Your task to perform on an android device: find snoozed emails in the gmail app Image 0: 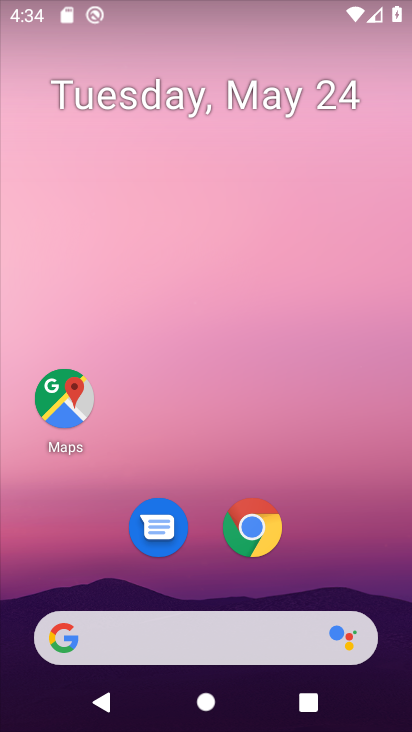
Step 0: drag from (382, 578) to (265, 240)
Your task to perform on an android device: find snoozed emails in the gmail app Image 1: 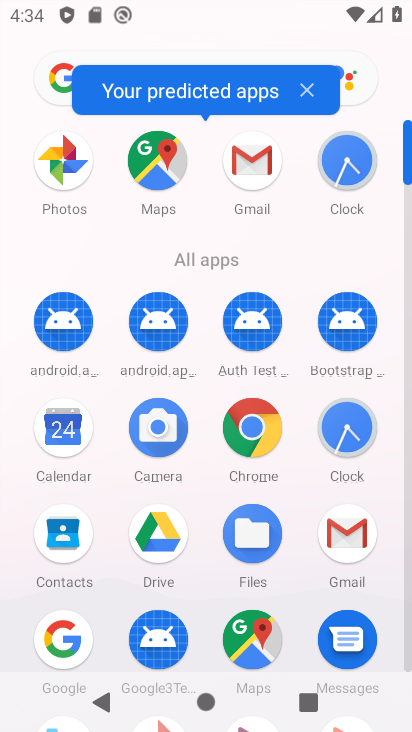
Step 1: click (250, 167)
Your task to perform on an android device: find snoozed emails in the gmail app Image 2: 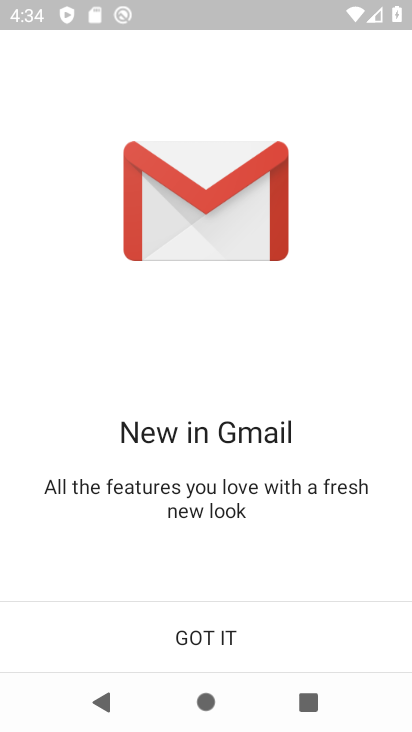
Step 2: click (186, 641)
Your task to perform on an android device: find snoozed emails in the gmail app Image 3: 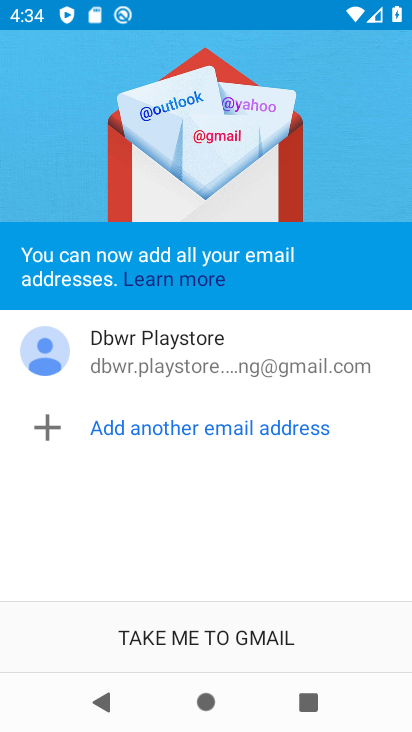
Step 3: click (186, 641)
Your task to perform on an android device: find snoozed emails in the gmail app Image 4: 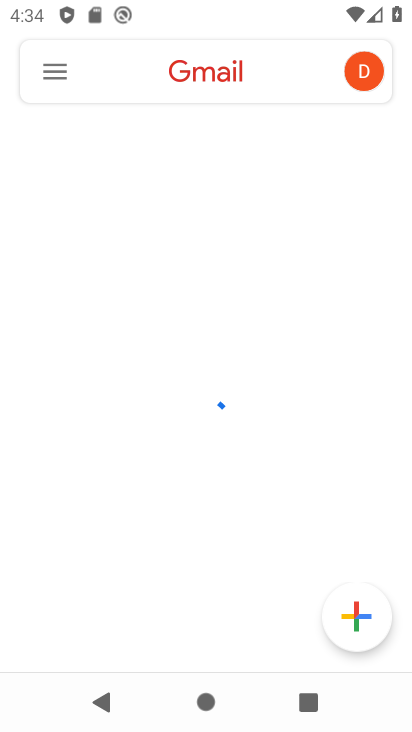
Step 4: click (47, 63)
Your task to perform on an android device: find snoozed emails in the gmail app Image 5: 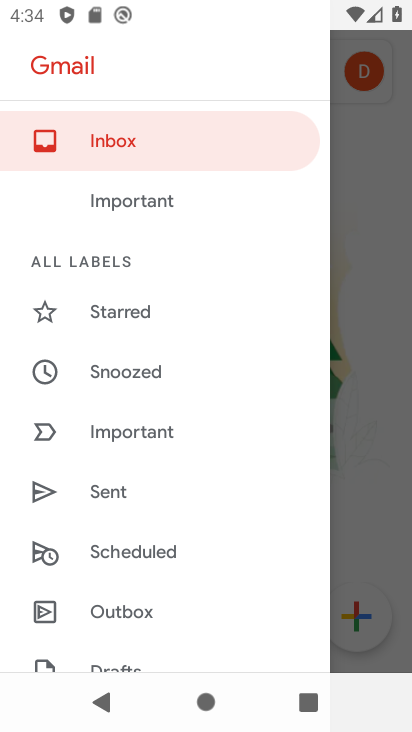
Step 5: click (168, 367)
Your task to perform on an android device: find snoozed emails in the gmail app Image 6: 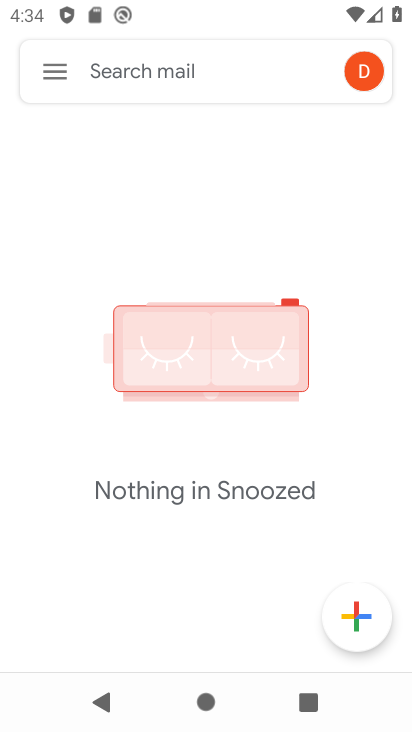
Step 6: task complete